Your task to perform on an android device: Search for Italian restaurants on Maps Image 0: 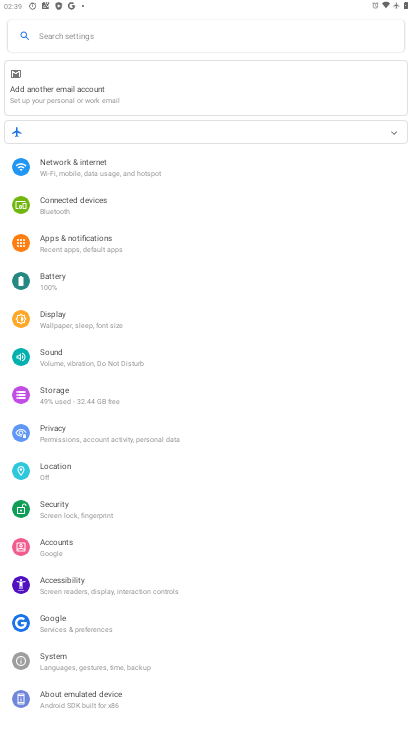
Step 0: press home button
Your task to perform on an android device: Search for Italian restaurants on Maps Image 1: 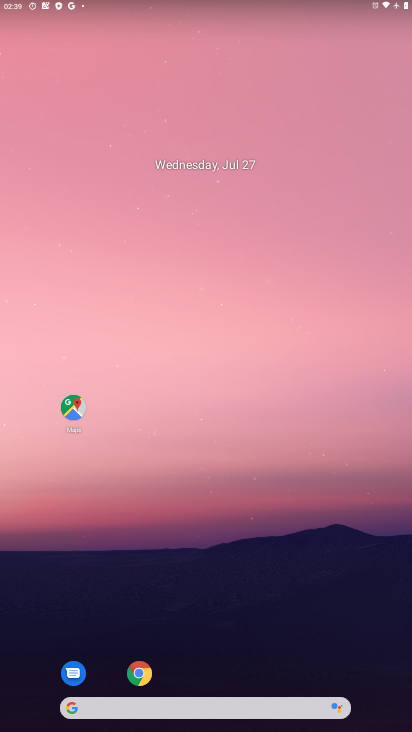
Step 1: click (77, 407)
Your task to perform on an android device: Search for Italian restaurants on Maps Image 2: 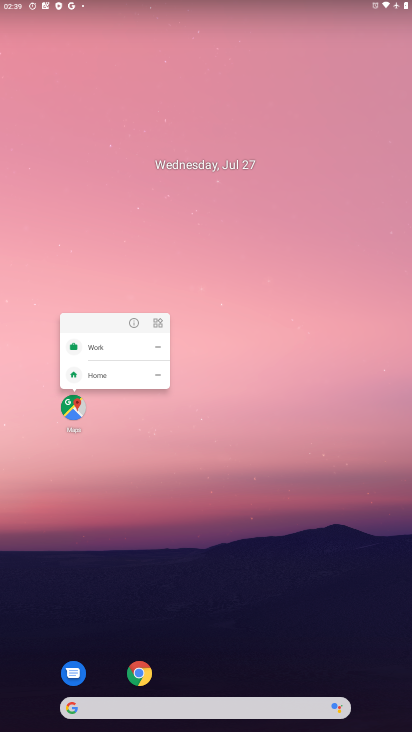
Step 2: click (69, 408)
Your task to perform on an android device: Search for Italian restaurants on Maps Image 3: 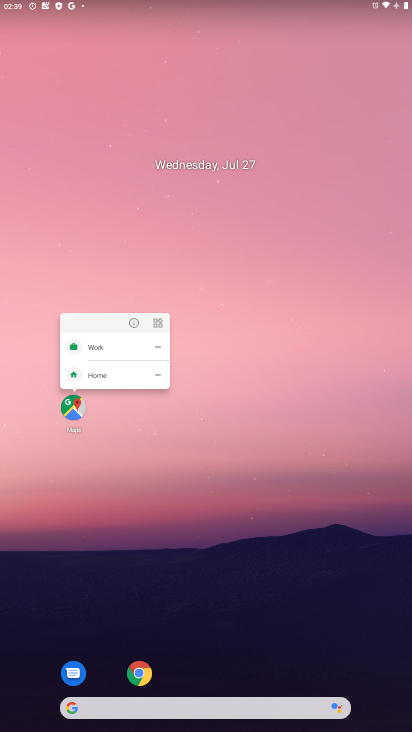
Step 3: click (69, 408)
Your task to perform on an android device: Search for Italian restaurants on Maps Image 4: 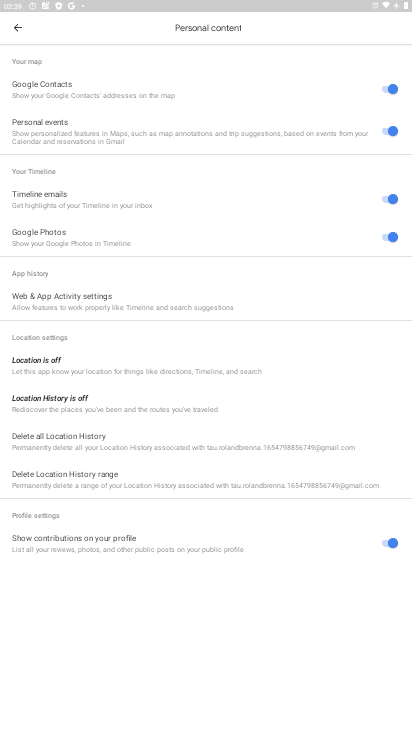
Step 4: click (20, 29)
Your task to perform on an android device: Search for Italian restaurants on Maps Image 5: 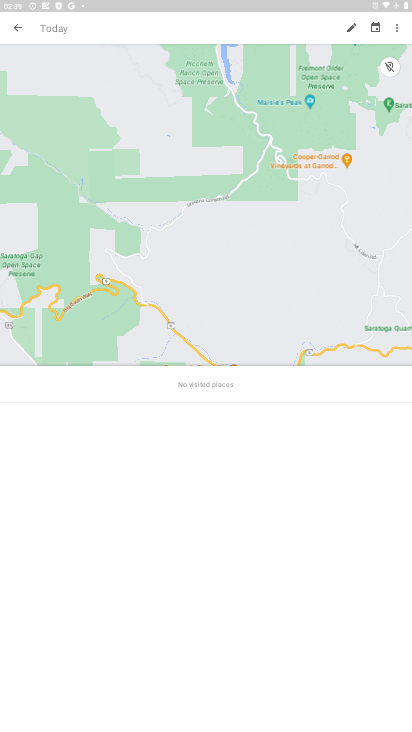
Step 5: click (21, 27)
Your task to perform on an android device: Search for Italian restaurants on Maps Image 6: 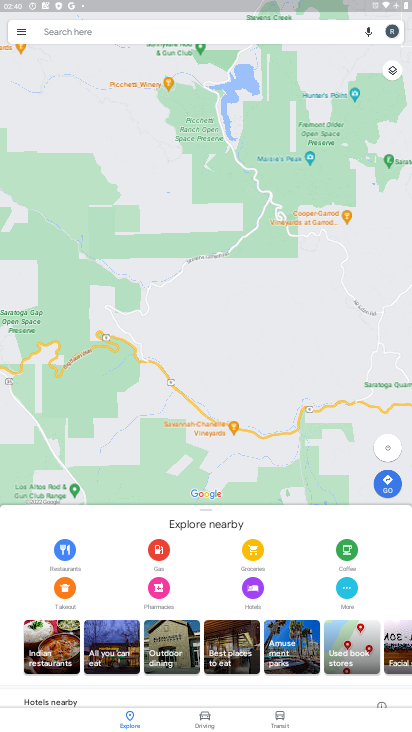
Step 6: click (116, 28)
Your task to perform on an android device: Search for Italian restaurants on Maps Image 7: 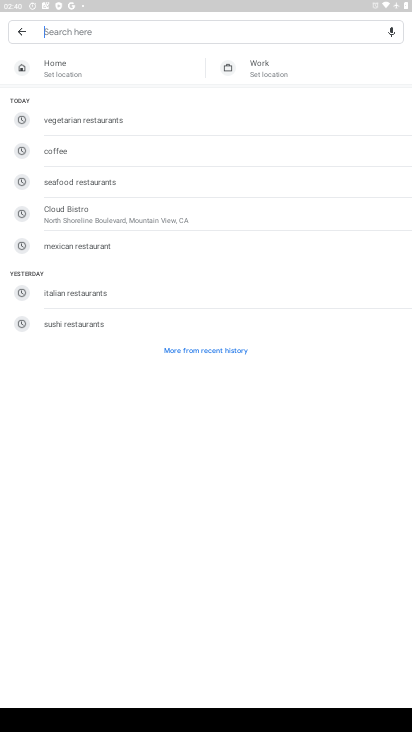
Step 7: type "Italian restaurants"
Your task to perform on an android device: Search for Italian restaurants on Maps Image 8: 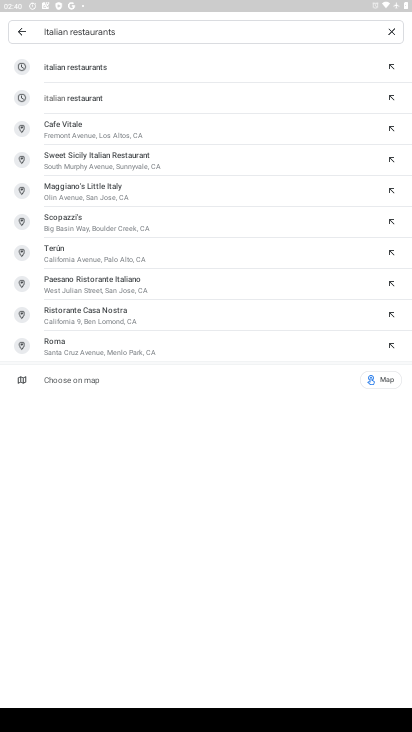
Step 8: click (86, 71)
Your task to perform on an android device: Search for Italian restaurants on Maps Image 9: 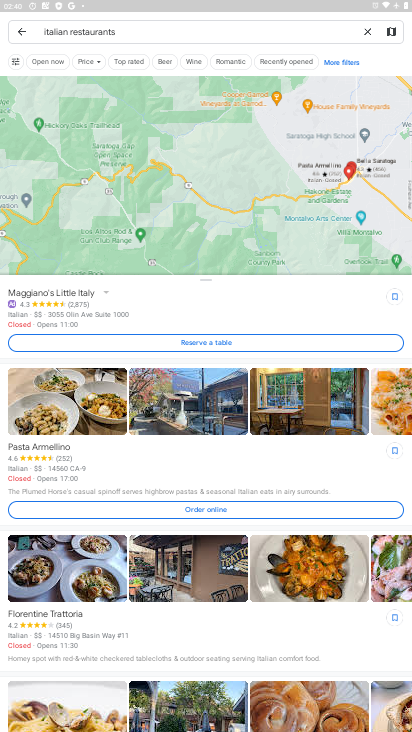
Step 9: task complete